Your task to perform on an android device: change the clock display to analog Image 0: 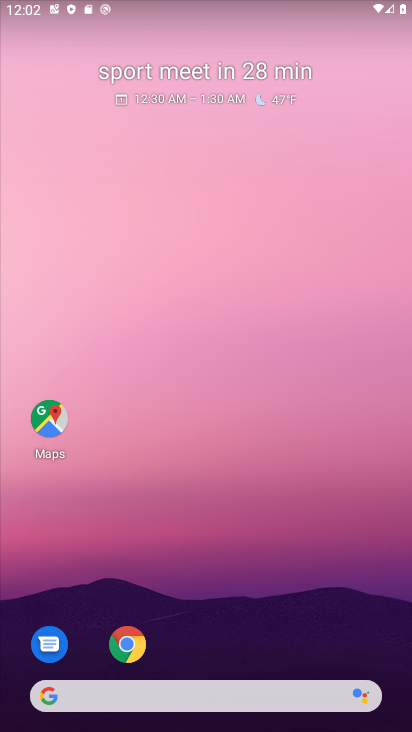
Step 0: drag from (34, 634) to (266, 153)
Your task to perform on an android device: change the clock display to analog Image 1: 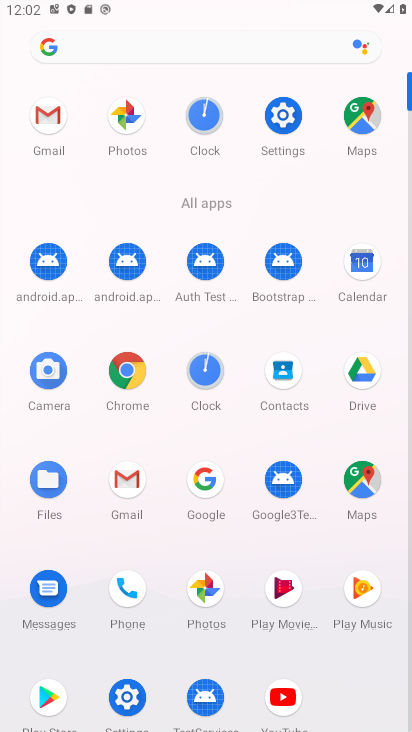
Step 1: click (201, 377)
Your task to perform on an android device: change the clock display to analog Image 2: 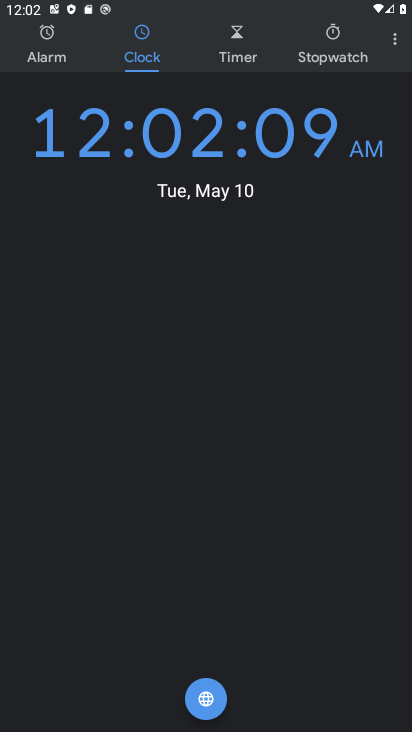
Step 2: click (401, 46)
Your task to perform on an android device: change the clock display to analog Image 3: 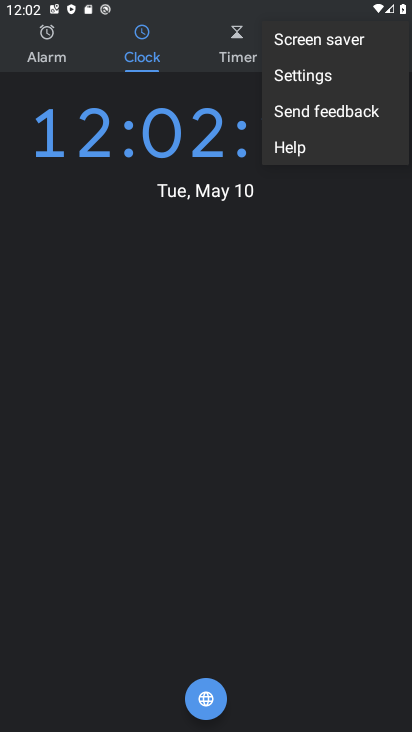
Step 3: click (319, 79)
Your task to perform on an android device: change the clock display to analog Image 4: 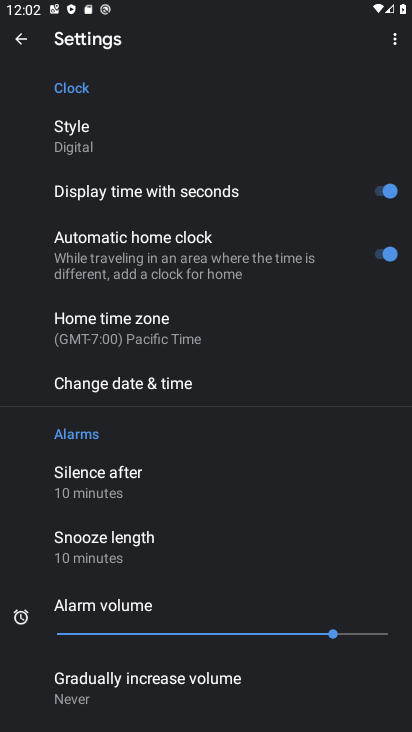
Step 4: click (77, 144)
Your task to perform on an android device: change the clock display to analog Image 5: 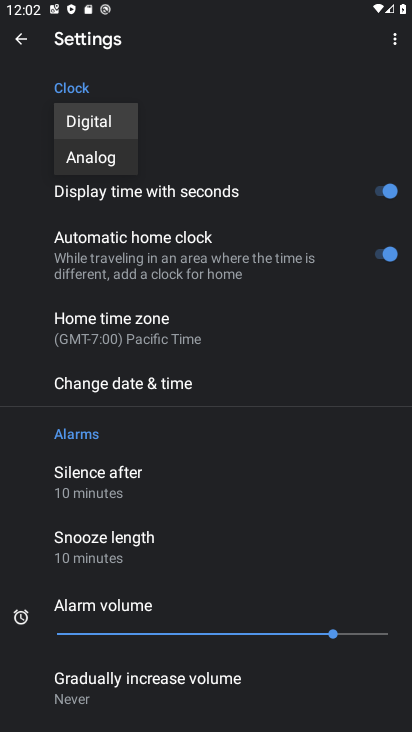
Step 5: click (97, 165)
Your task to perform on an android device: change the clock display to analog Image 6: 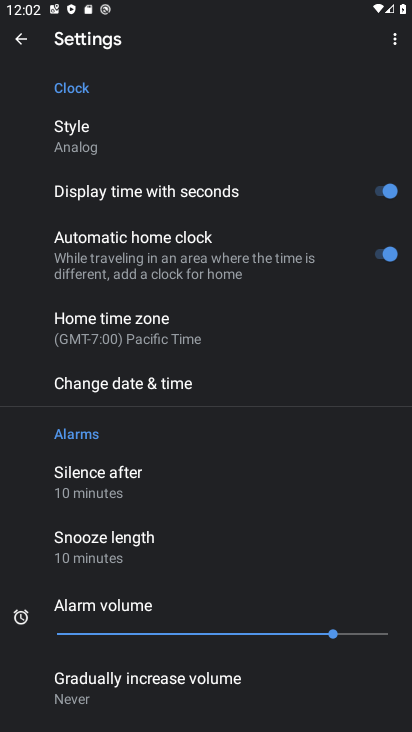
Step 6: task complete